Your task to perform on an android device: delete a single message in the gmail app Image 0: 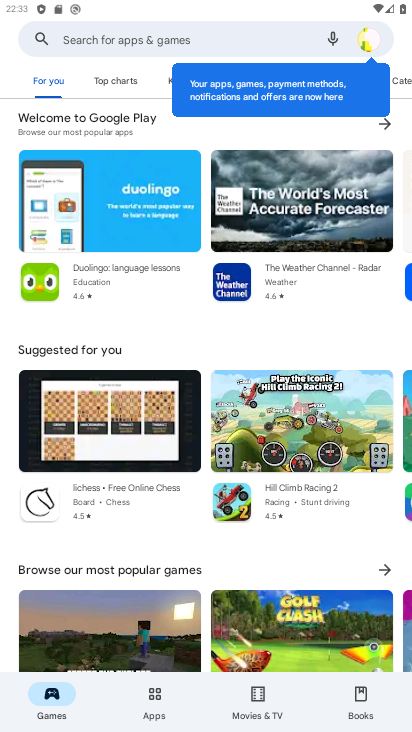
Step 0: press home button
Your task to perform on an android device: delete a single message in the gmail app Image 1: 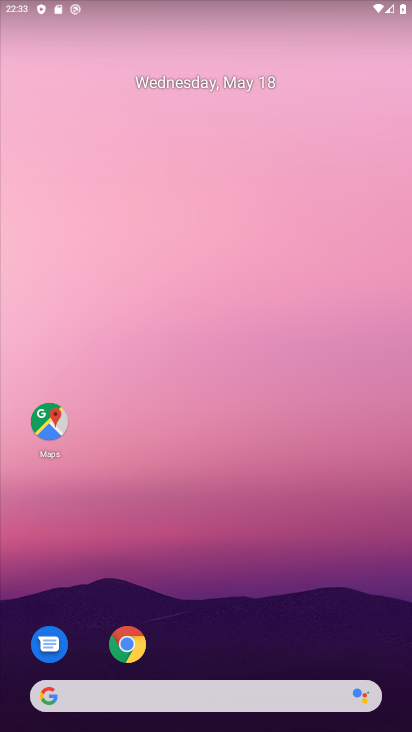
Step 1: drag from (198, 615) to (259, 141)
Your task to perform on an android device: delete a single message in the gmail app Image 2: 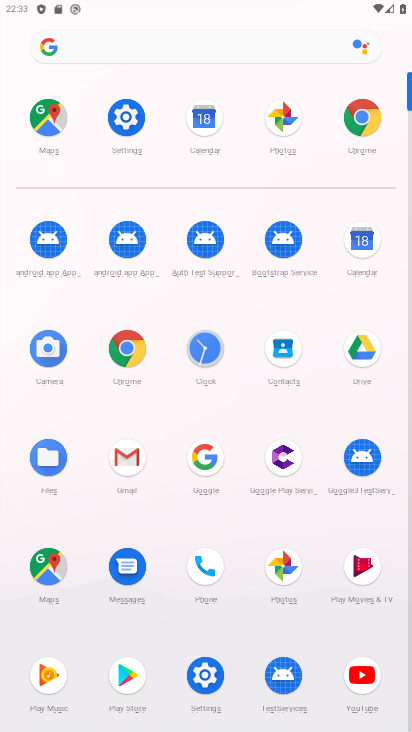
Step 2: click (133, 461)
Your task to perform on an android device: delete a single message in the gmail app Image 3: 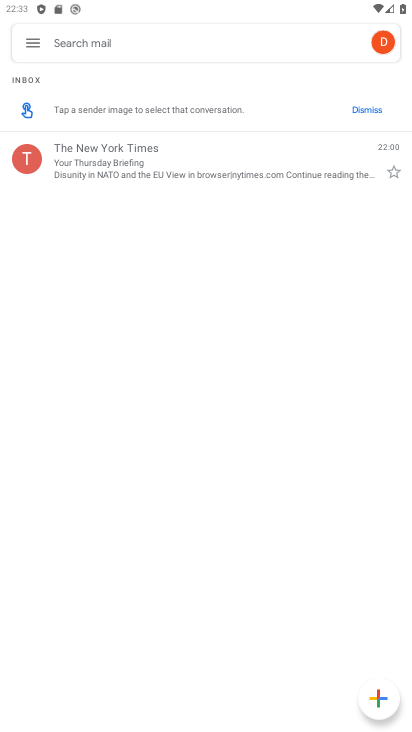
Step 3: click (33, 37)
Your task to perform on an android device: delete a single message in the gmail app Image 4: 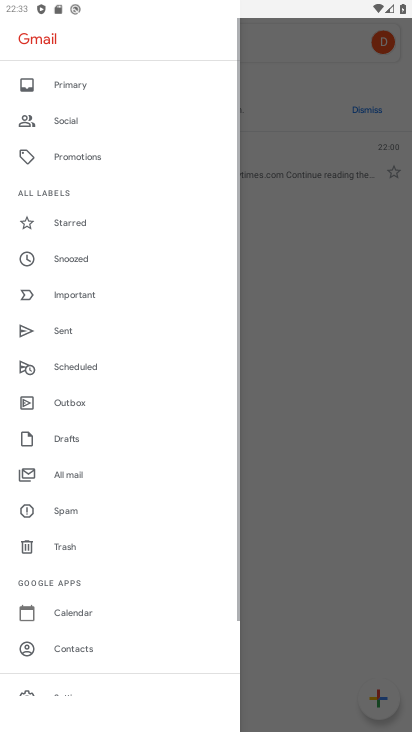
Step 4: click (288, 295)
Your task to perform on an android device: delete a single message in the gmail app Image 5: 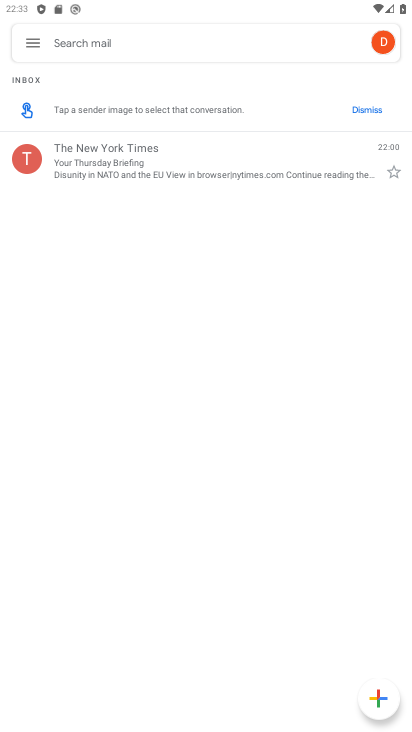
Step 5: click (336, 149)
Your task to perform on an android device: delete a single message in the gmail app Image 6: 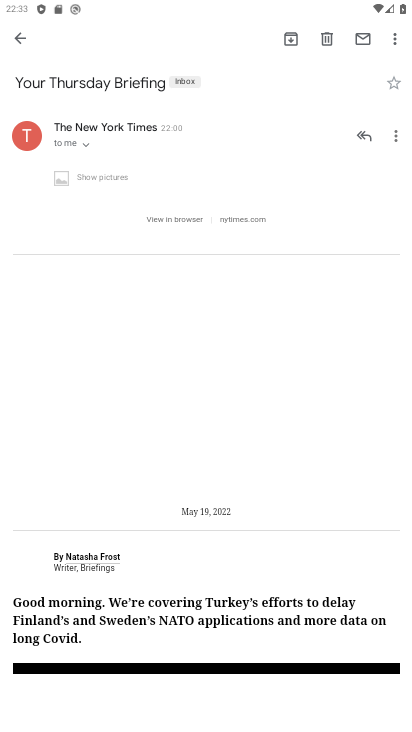
Step 6: click (330, 28)
Your task to perform on an android device: delete a single message in the gmail app Image 7: 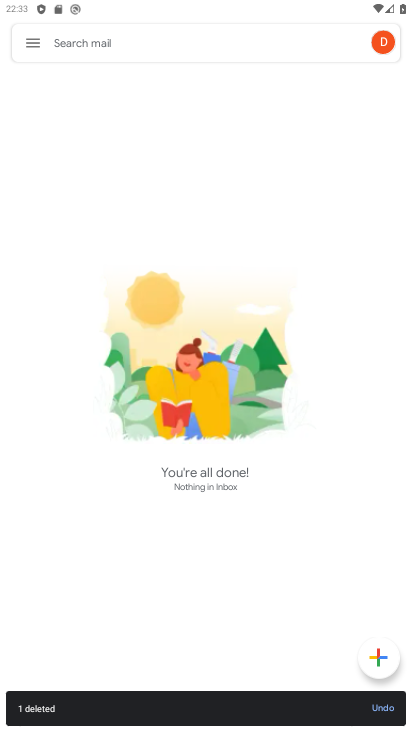
Step 7: task complete